Your task to perform on an android device: all mails in gmail Image 0: 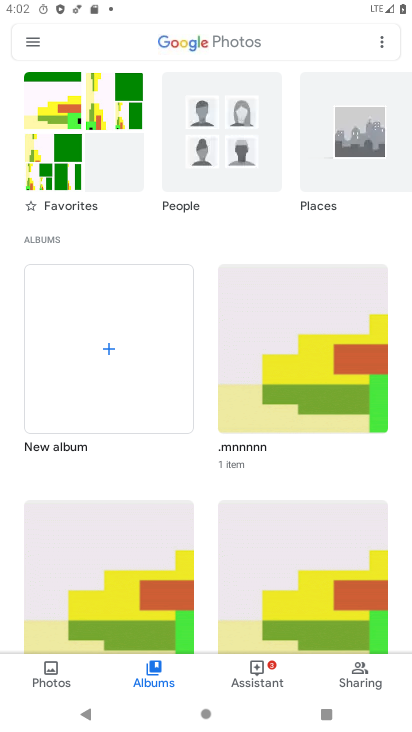
Step 0: press home button
Your task to perform on an android device: all mails in gmail Image 1: 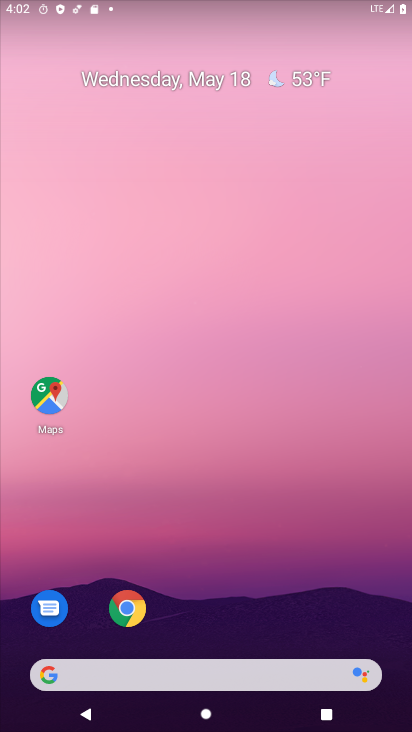
Step 1: drag from (182, 655) to (159, 28)
Your task to perform on an android device: all mails in gmail Image 2: 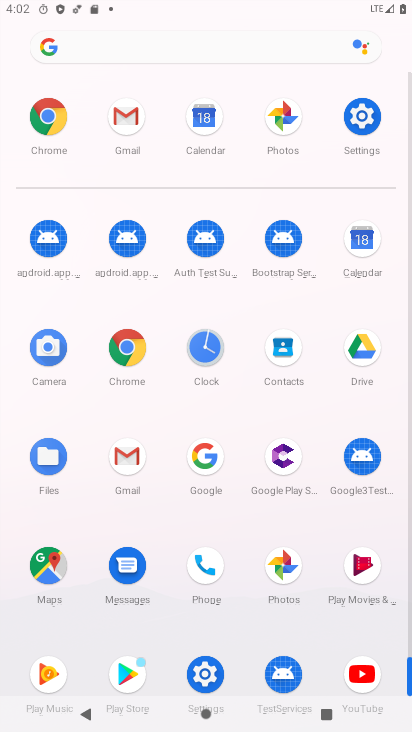
Step 2: click (120, 450)
Your task to perform on an android device: all mails in gmail Image 3: 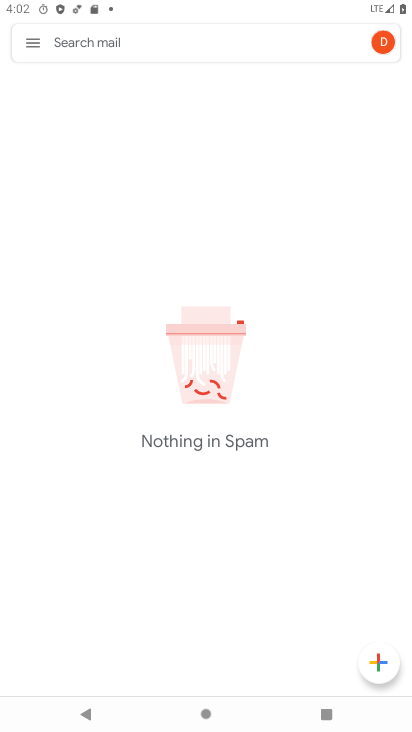
Step 3: click (24, 47)
Your task to perform on an android device: all mails in gmail Image 4: 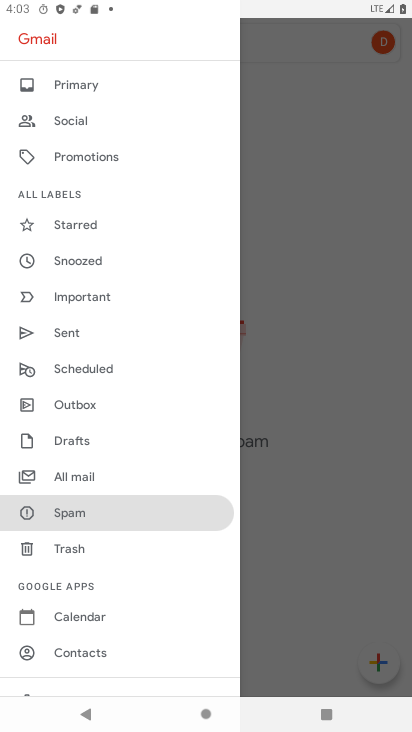
Step 4: click (79, 462)
Your task to perform on an android device: all mails in gmail Image 5: 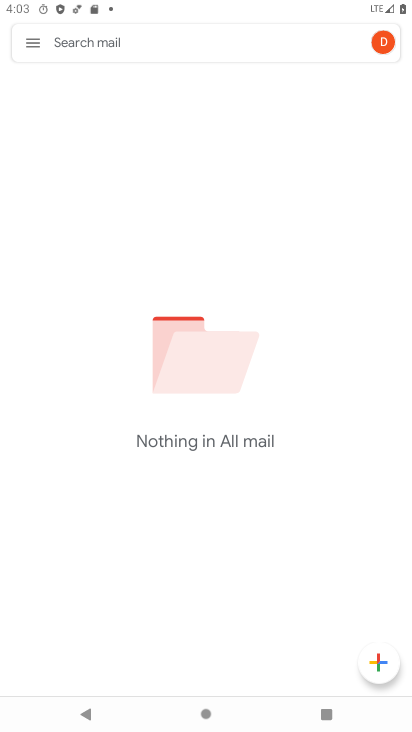
Step 5: task complete